Your task to perform on an android device: Open wifi settings Image 0: 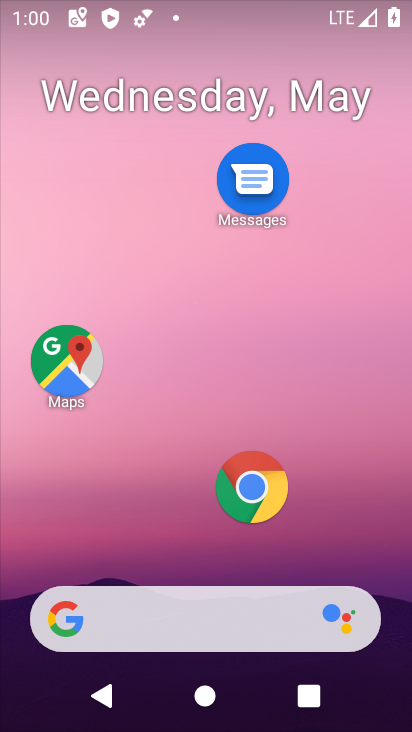
Step 0: drag from (159, 564) to (291, 68)
Your task to perform on an android device: Open wifi settings Image 1: 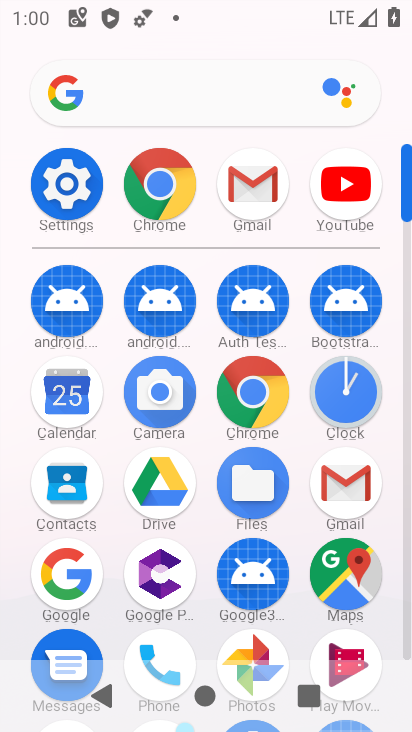
Step 1: click (76, 185)
Your task to perform on an android device: Open wifi settings Image 2: 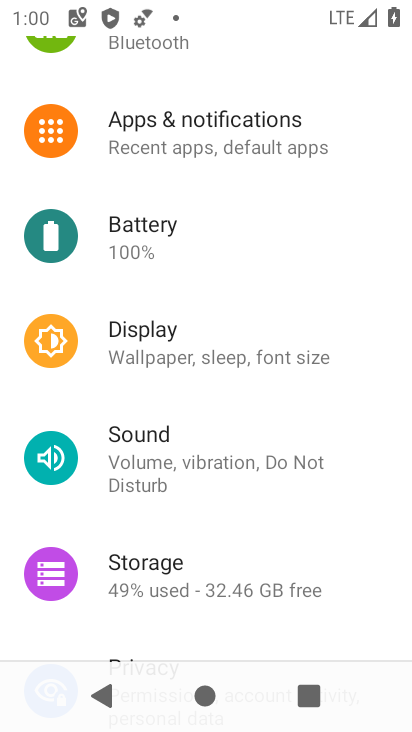
Step 2: drag from (241, 179) to (248, 550)
Your task to perform on an android device: Open wifi settings Image 3: 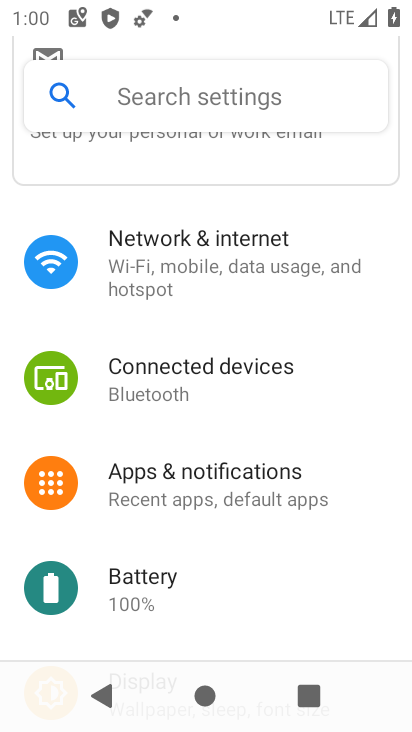
Step 3: click (236, 266)
Your task to perform on an android device: Open wifi settings Image 4: 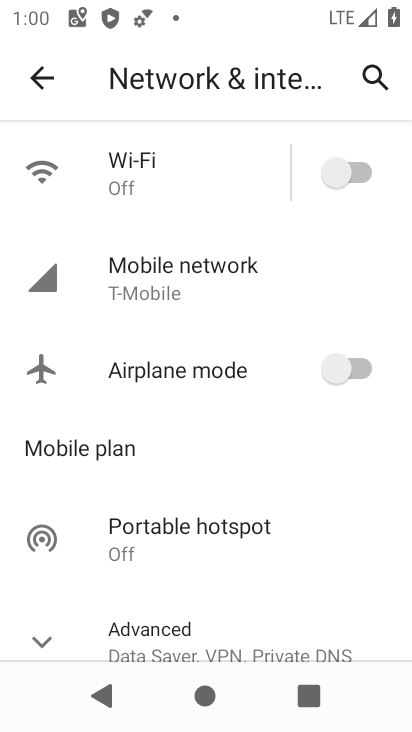
Step 4: click (148, 163)
Your task to perform on an android device: Open wifi settings Image 5: 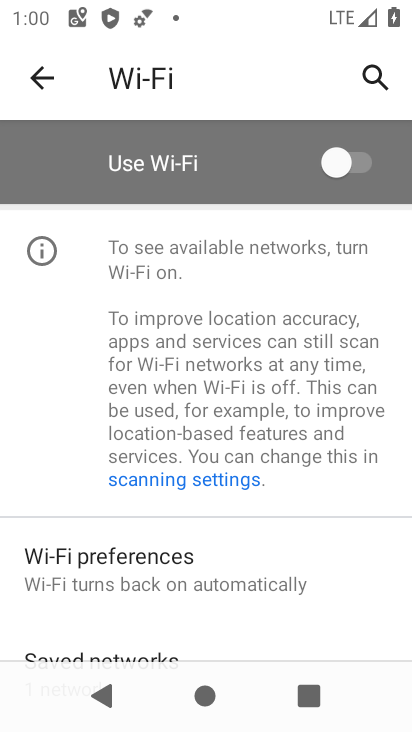
Step 5: task complete